Your task to perform on an android device: When is my next meeting? Image 0: 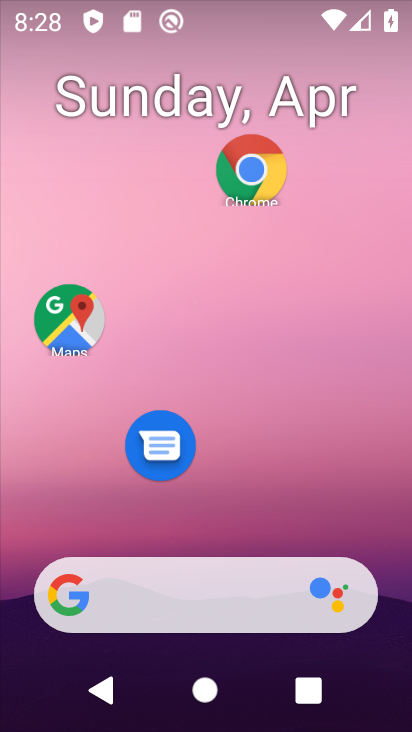
Step 0: drag from (305, 502) to (243, 14)
Your task to perform on an android device: When is my next meeting? Image 1: 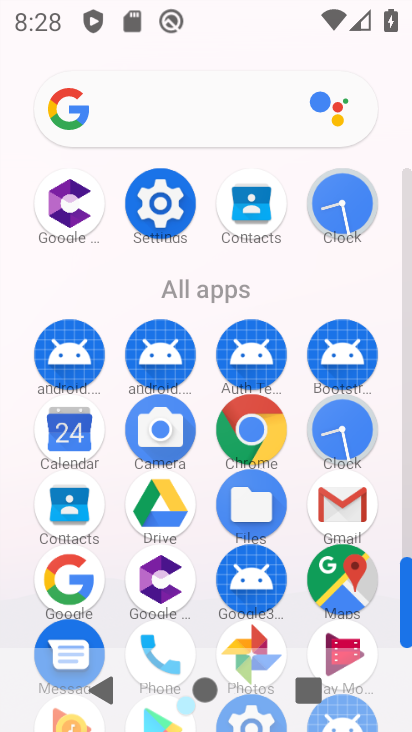
Step 1: click (68, 436)
Your task to perform on an android device: When is my next meeting? Image 2: 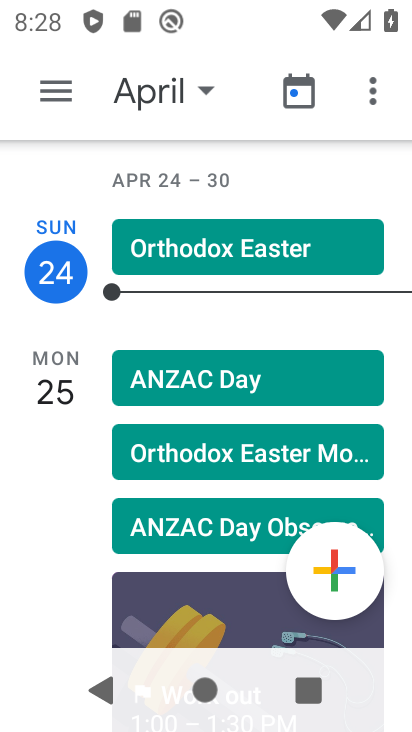
Step 2: click (195, 95)
Your task to perform on an android device: When is my next meeting? Image 3: 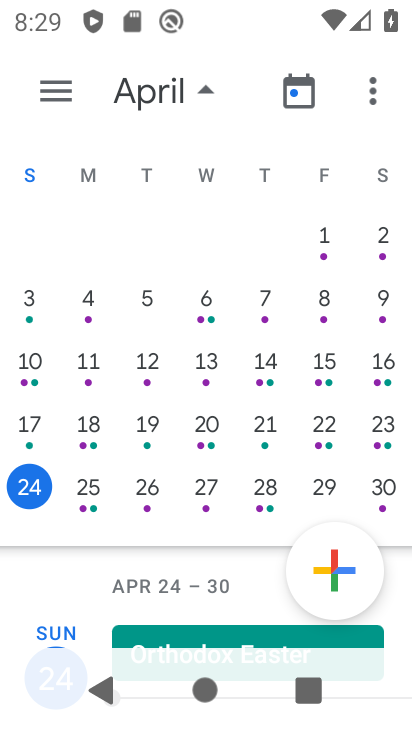
Step 3: click (252, 490)
Your task to perform on an android device: When is my next meeting? Image 4: 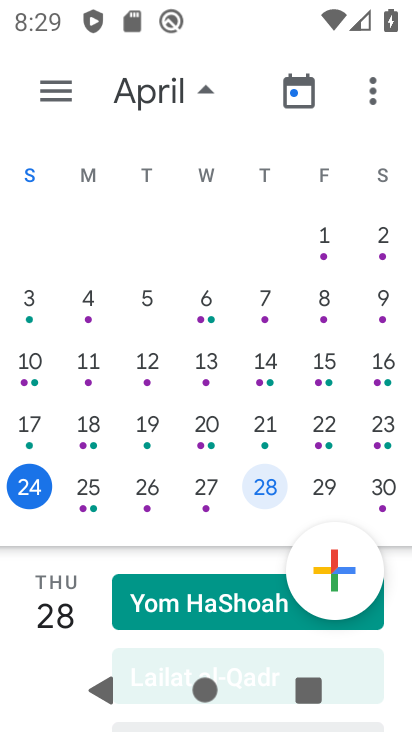
Step 4: task complete